Your task to perform on an android device: turn on bluetooth scan Image 0: 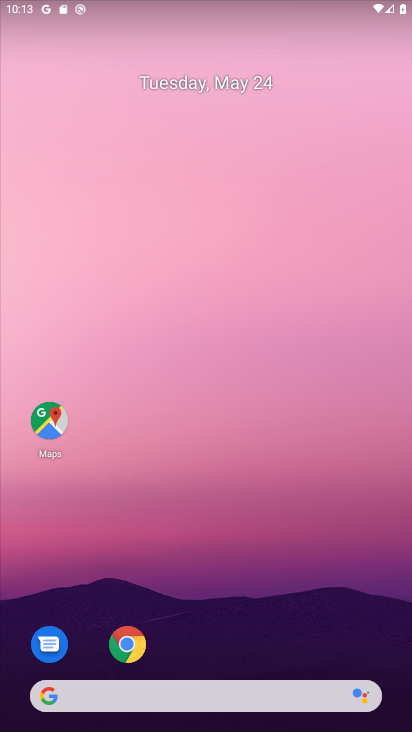
Step 0: drag from (248, 556) to (102, 74)
Your task to perform on an android device: turn on bluetooth scan Image 1: 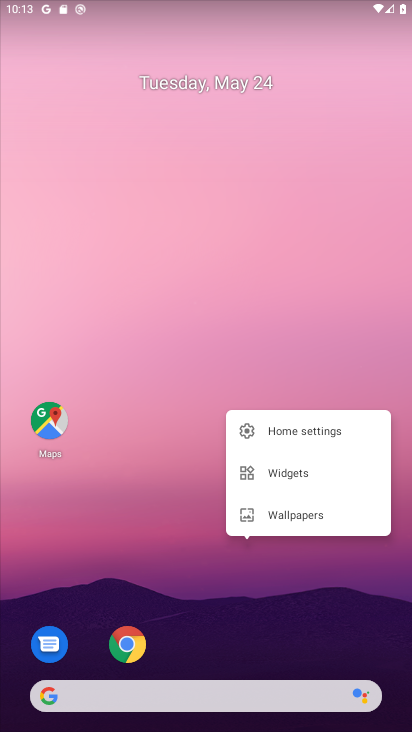
Step 1: click (114, 340)
Your task to perform on an android device: turn on bluetooth scan Image 2: 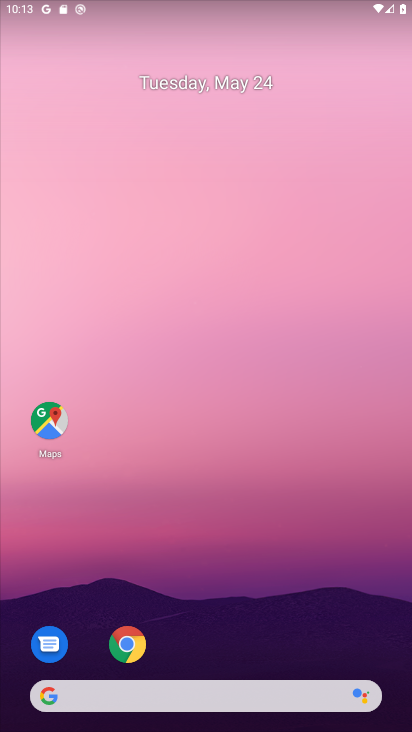
Step 2: drag from (202, 577) to (175, 204)
Your task to perform on an android device: turn on bluetooth scan Image 3: 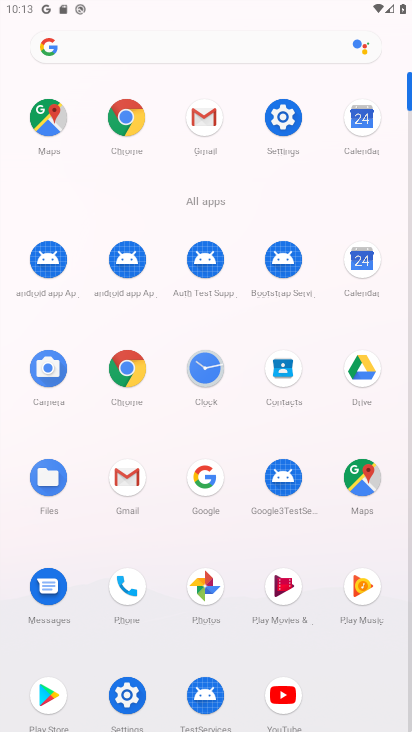
Step 3: click (282, 117)
Your task to perform on an android device: turn on bluetooth scan Image 4: 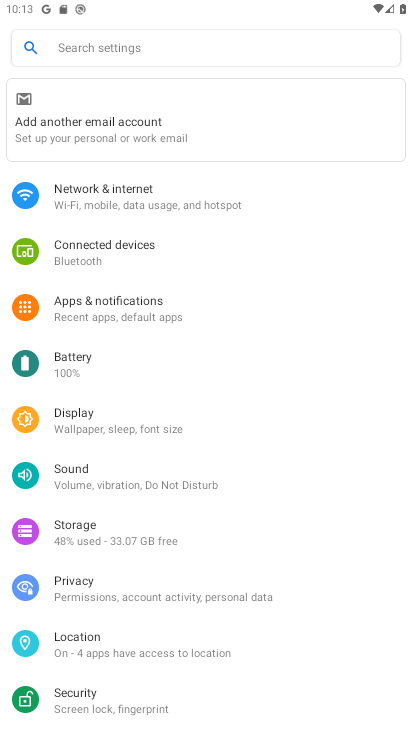
Step 4: click (83, 640)
Your task to perform on an android device: turn on bluetooth scan Image 5: 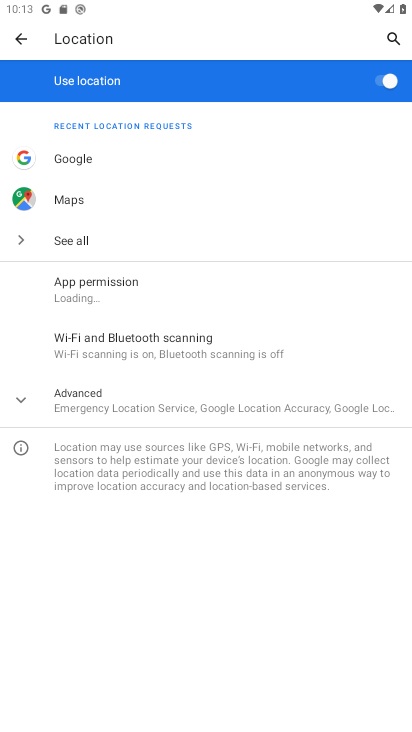
Step 5: click (113, 332)
Your task to perform on an android device: turn on bluetooth scan Image 6: 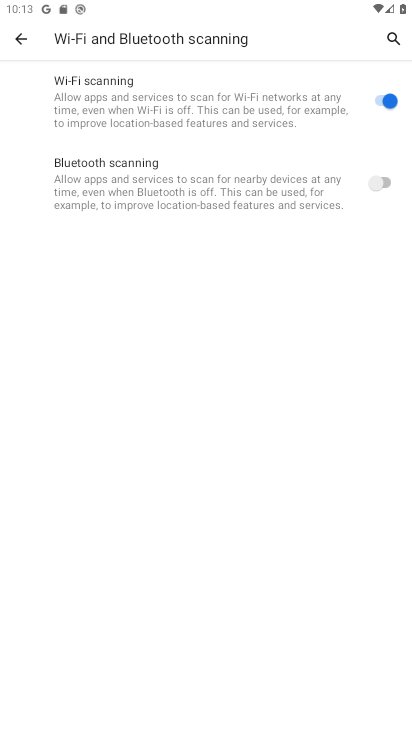
Step 6: click (377, 188)
Your task to perform on an android device: turn on bluetooth scan Image 7: 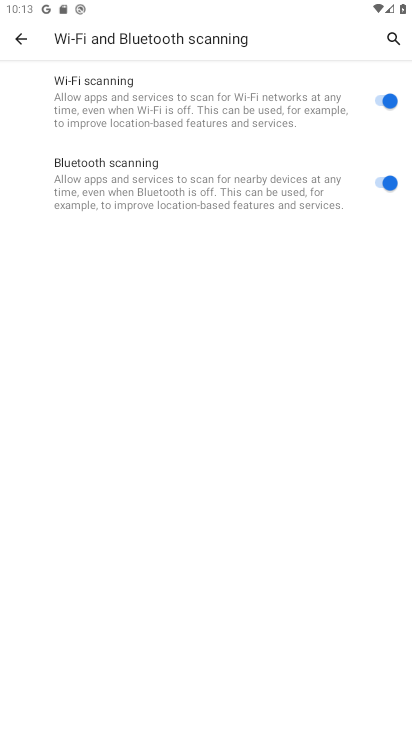
Step 7: task complete